Your task to perform on an android device: change notifications settings Image 0: 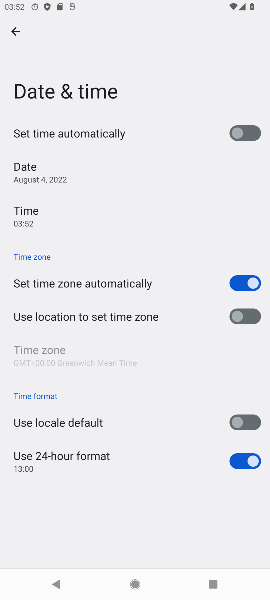
Step 0: press home button
Your task to perform on an android device: change notifications settings Image 1: 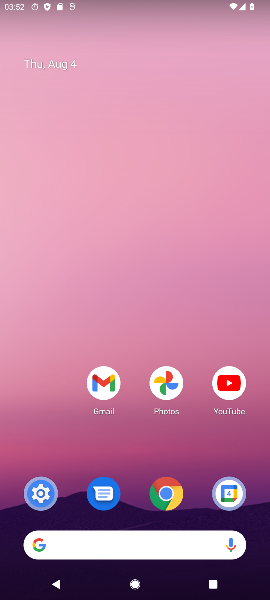
Step 1: click (29, 492)
Your task to perform on an android device: change notifications settings Image 2: 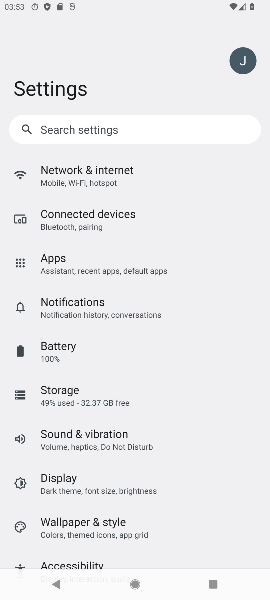
Step 2: click (118, 305)
Your task to perform on an android device: change notifications settings Image 3: 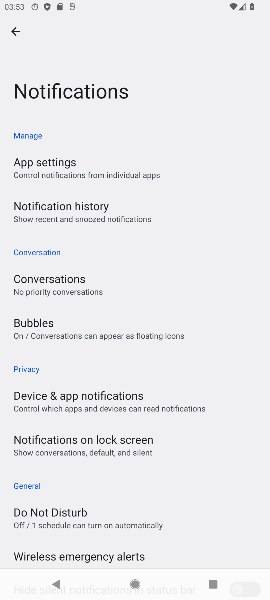
Step 3: drag from (200, 502) to (219, 34)
Your task to perform on an android device: change notifications settings Image 4: 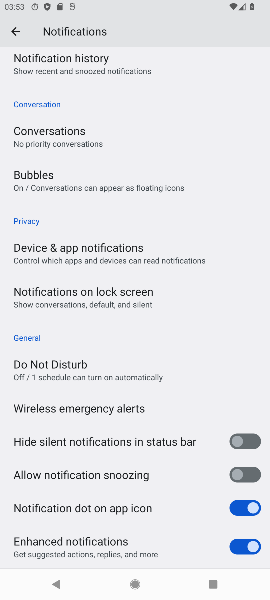
Step 4: drag from (210, 117) to (199, 390)
Your task to perform on an android device: change notifications settings Image 5: 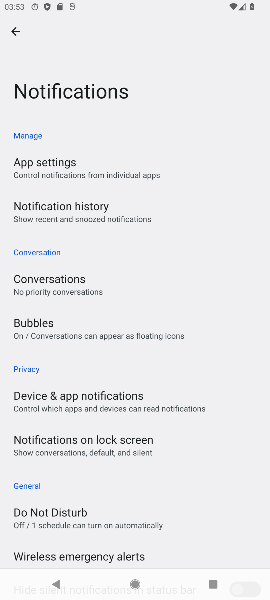
Step 5: click (97, 216)
Your task to perform on an android device: change notifications settings Image 6: 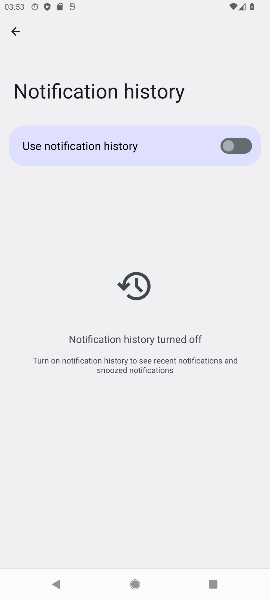
Step 6: click (229, 140)
Your task to perform on an android device: change notifications settings Image 7: 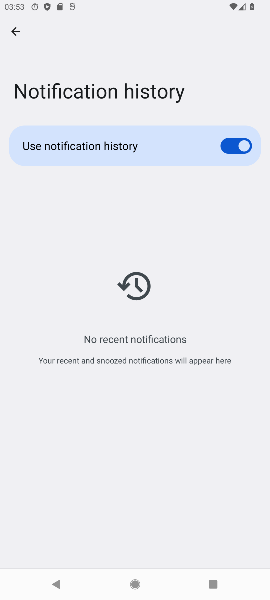
Step 7: task complete